Your task to perform on an android device: Go to Google maps Image 0: 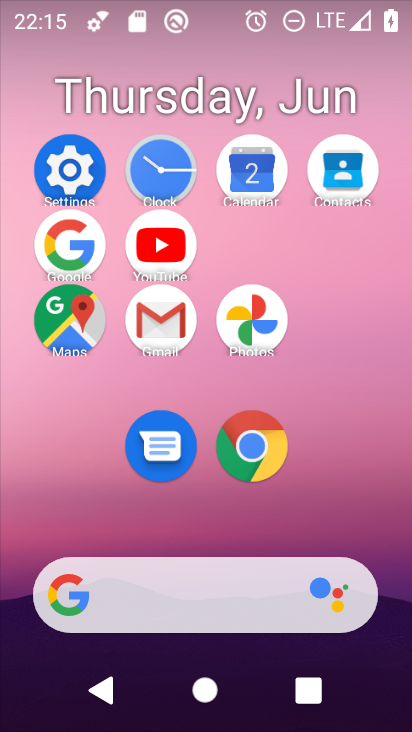
Step 0: click (87, 324)
Your task to perform on an android device: Go to Google maps Image 1: 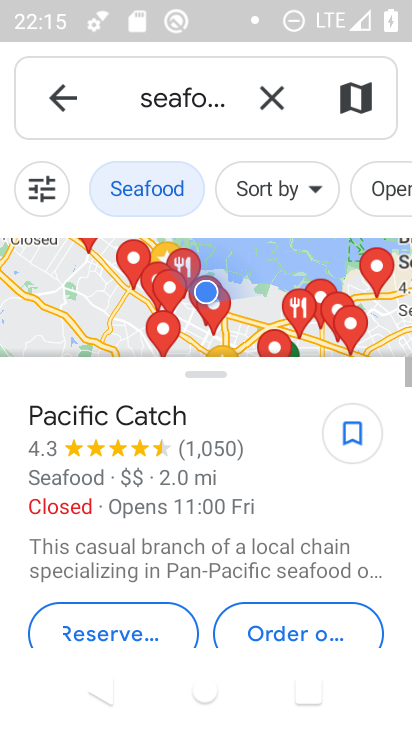
Step 1: task complete